Your task to perform on an android device: turn on the 24-hour format for clock Image 0: 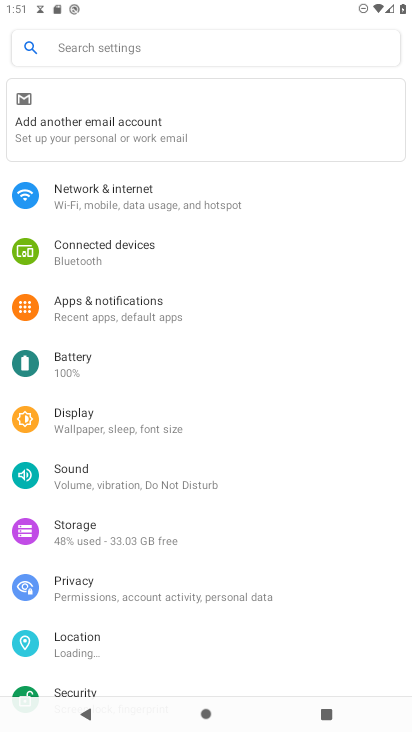
Step 0: press home button
Your task to perform on an android device: turn on the 24-hour format for clock Image 1: 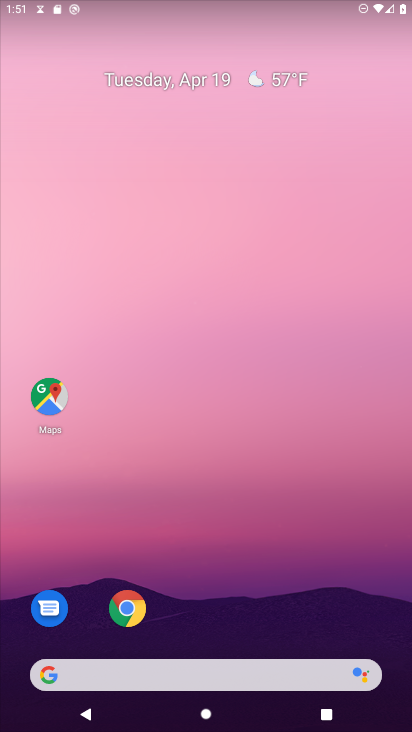
Step 1: drag from (146, 488) to (54, 157)
Your task to perform on an android device: turn on the 24-hour format for clock Image 2: 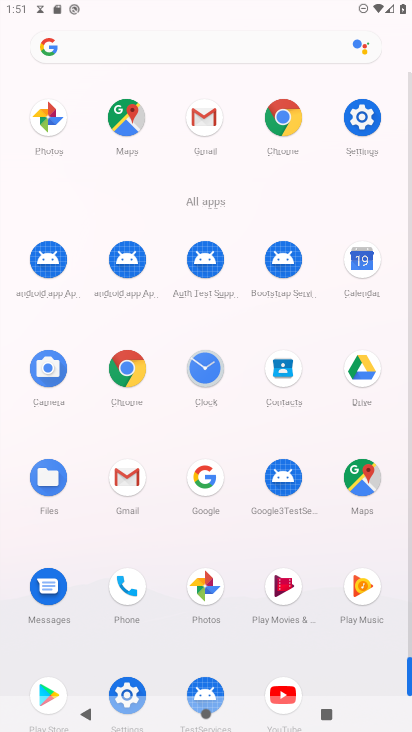
Step 2: click (206, 366)
Your task to perform on an android device: turn on the 24-hour format for clock Image 3: 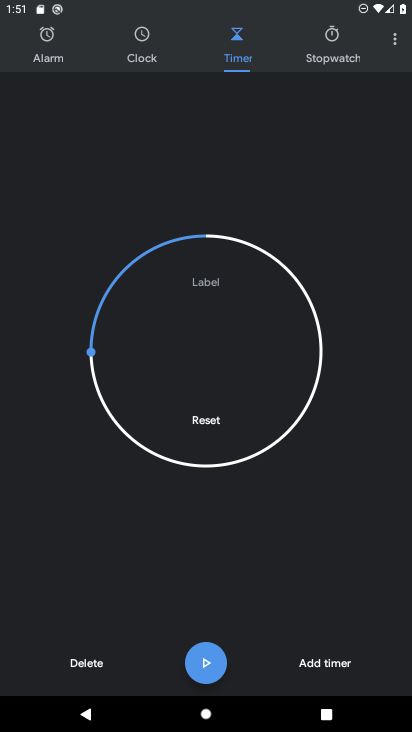
Step 3: click (397, 37)
Your task to perform on an android device: turn on the 24-hour format for clock Image 4: 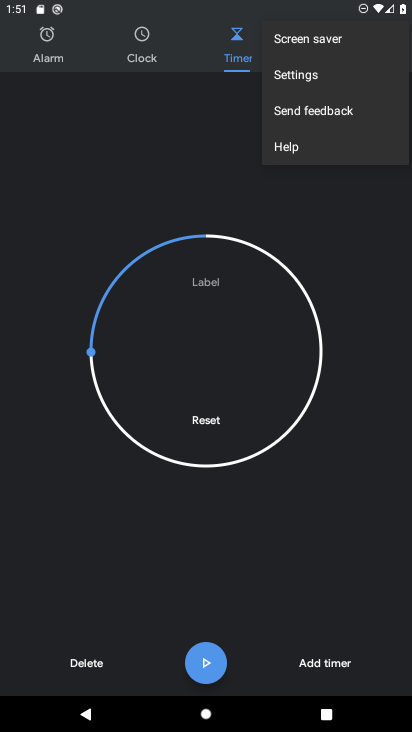
Step 4: click (333, 87)
Your task to perform on an android device: turn on the 24-hour format for clock Image 5: 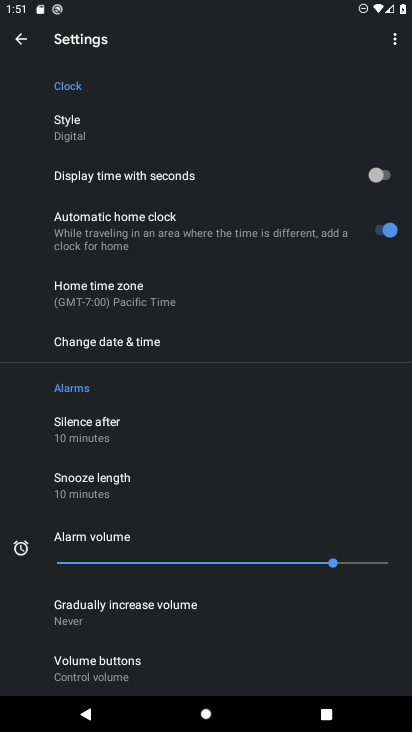
Step 5: click (130, 340)
Your task to perform on an android device: turn on the 24-hour format for clock Image 6: 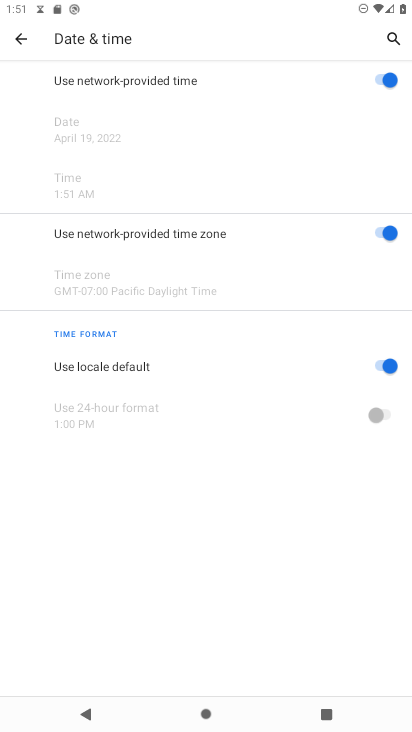
Step 6: click (385, 363)
Your task to perform on an android device: turn on the 24-hour format for clock Image 7: 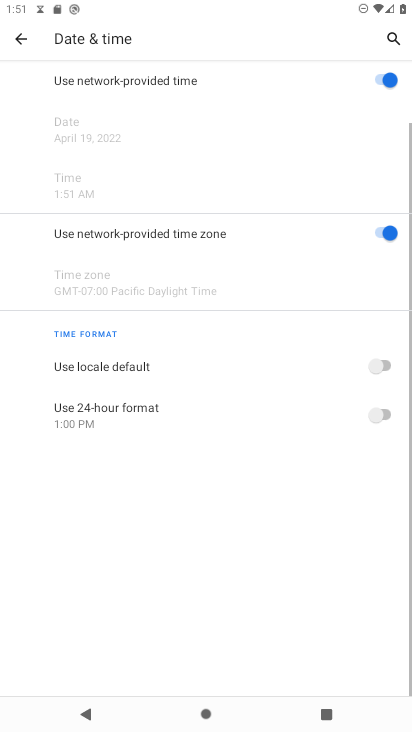
Step 7: click (379, 418)
Your task to perform on an android device: turn on the 24-hour format for clock Image 8: 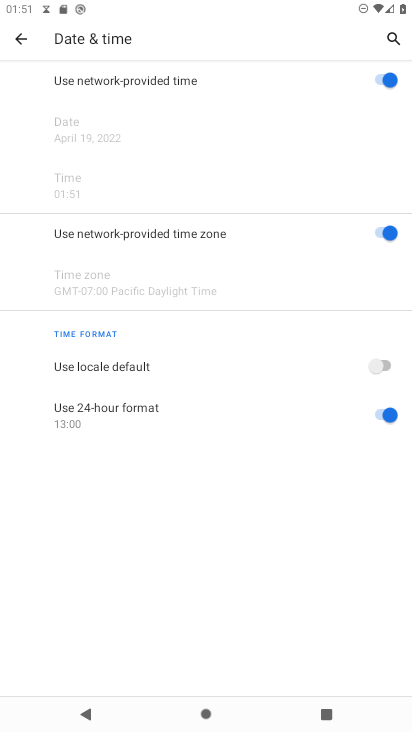
Step 8: task complete